Your task to perform on an android device: turn on location history Image 0: 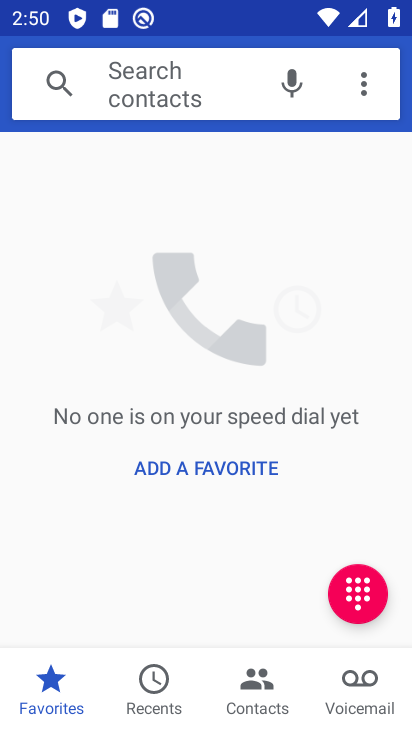
Step 0: press home button
Your task to perform on an android device: turn on location history Image 1: 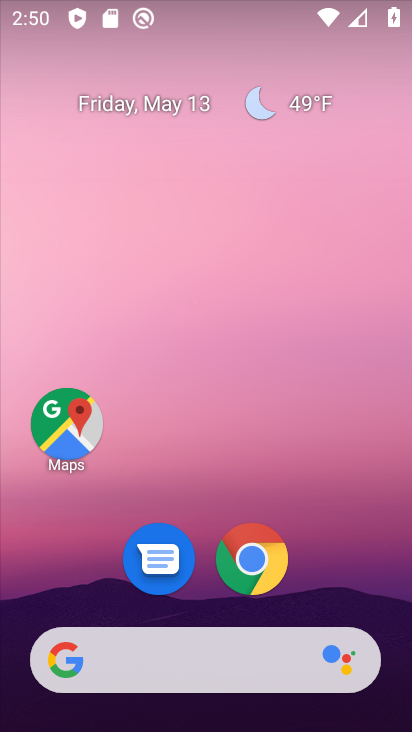
Step 1: click (63, 422)
Your task to perform on an android device: turn on location history Image 2: 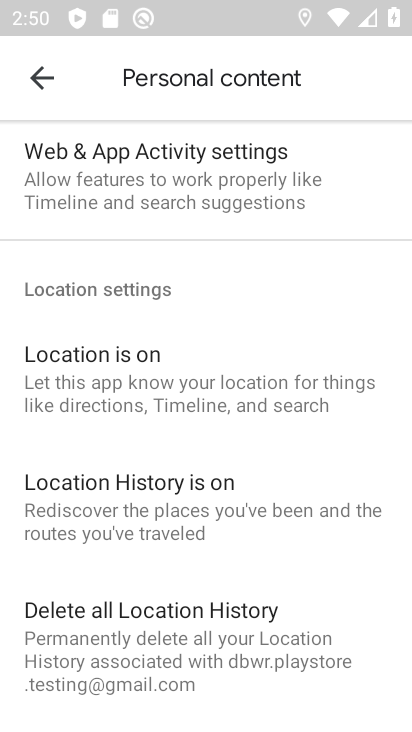
Step 2: press back button
Your task to perform on an android device: turn on location history Image 3: 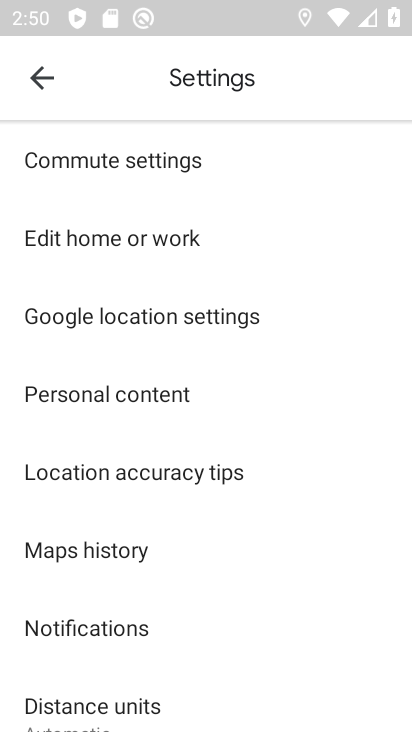
Step 3: press back button
Your task to perform on an android device: turn on location history Image 4: 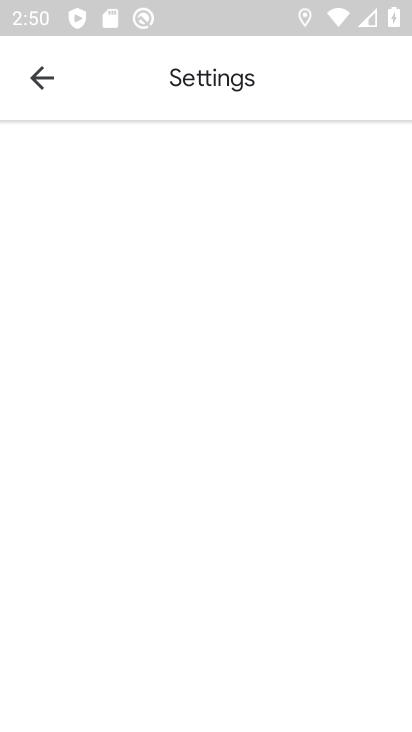
Step 4: press back button
Your task to perform on an android device: turn on location history Image 5: 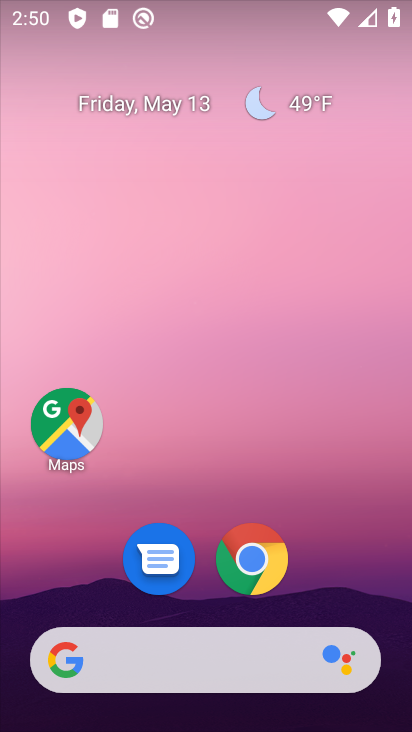
Step 5: click (63, 423)
Your task to perform on an android device: turn on location history Image 6: 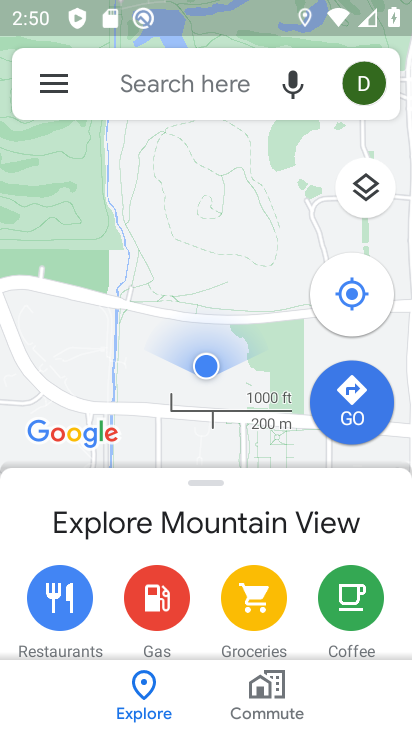
Step 6: click (64, 85)
Your task to perform on an android device: turn on location history Image 7: 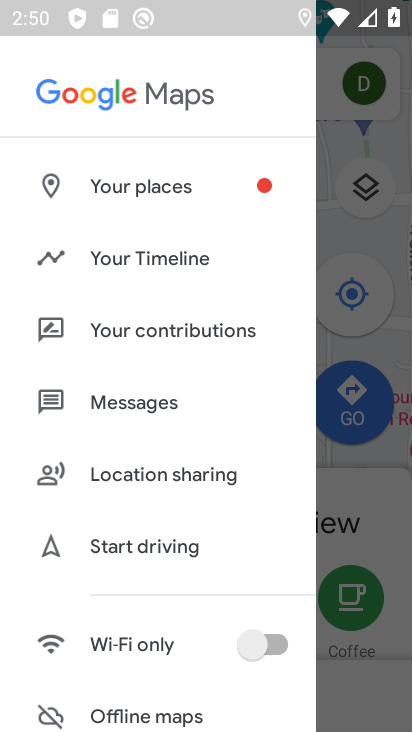
Step 7: drag from (210, 603) to (228, 217)
Your task to perform on an android device: turn on location history Image 8: 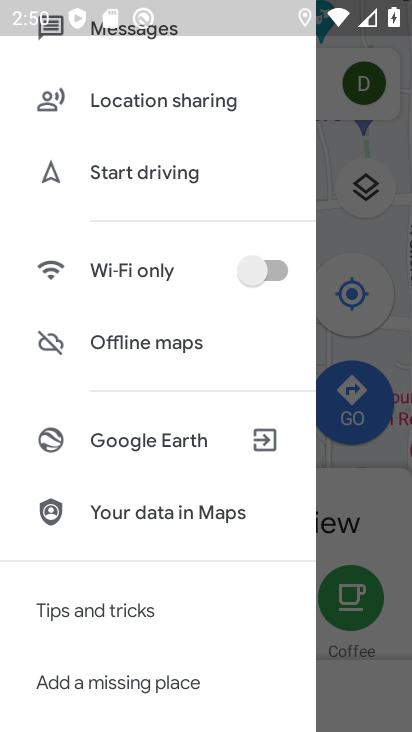
Step 8: drag from (155, 669) to (172, 276)
Your task to perform on an android device: turn on location history Image 9: 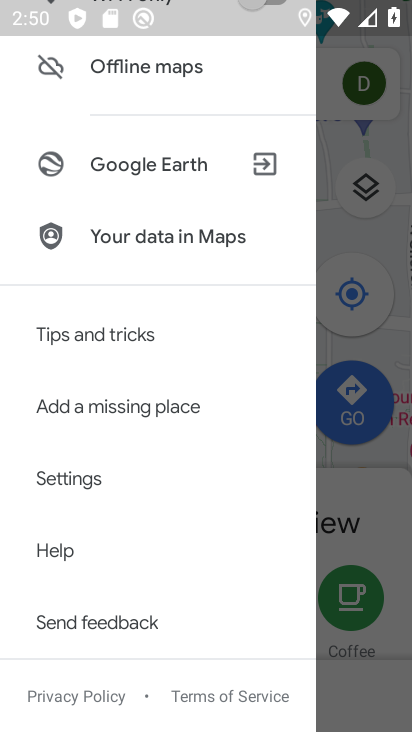
Step 9: click (66, 470)
Your task to perform on an android device: turn on location history Image 10: 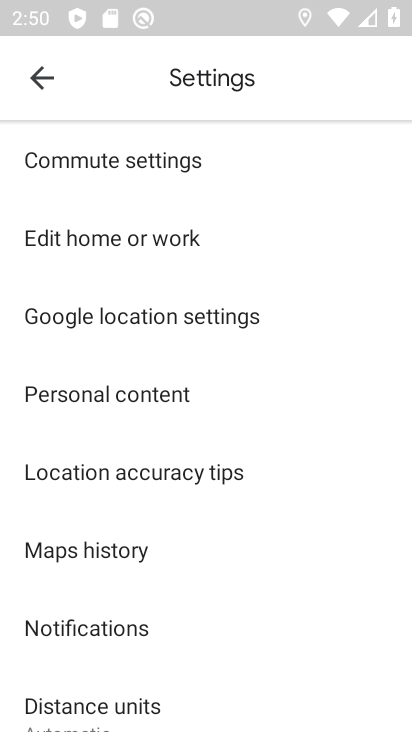
Step 10: click (73, 401)
Your task to perform on an android device: turn on location history Image 11: 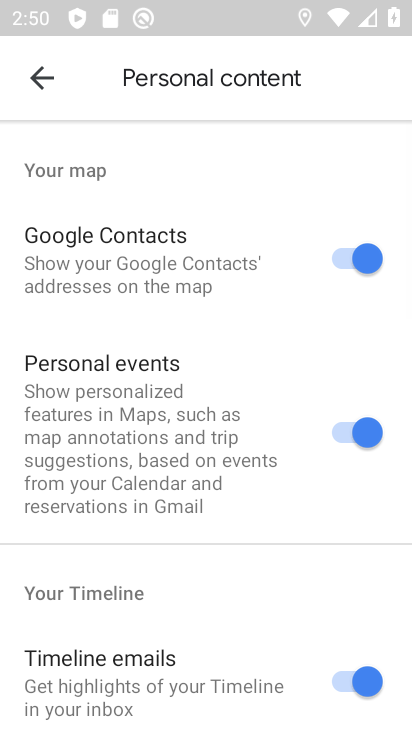
Step 11: task complete